Your task to perform on an android device: open wifi settings Image 0: 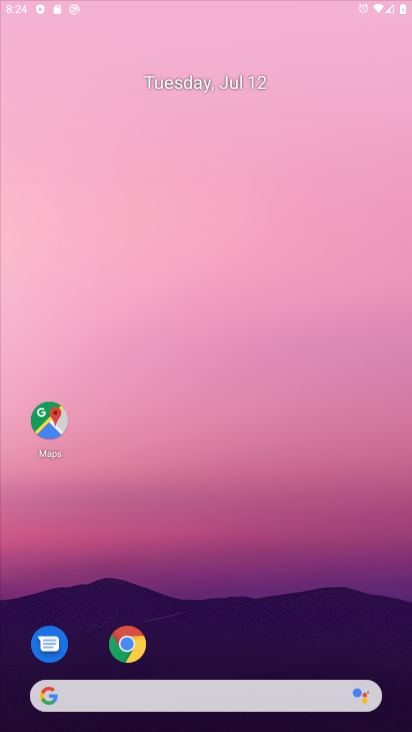
Step 0: drag from (302, 6) to (411, 500)
Your task to perform on an android device: open wifi settings Image 1: 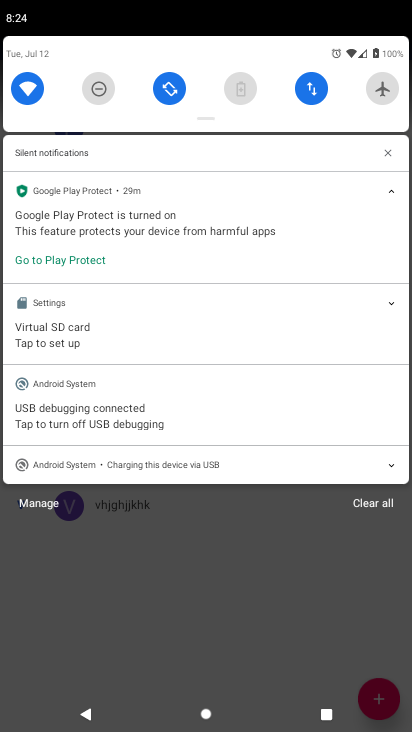
Step 1: press home button
Your task to perform on an android device: open wifi settings Image 2: 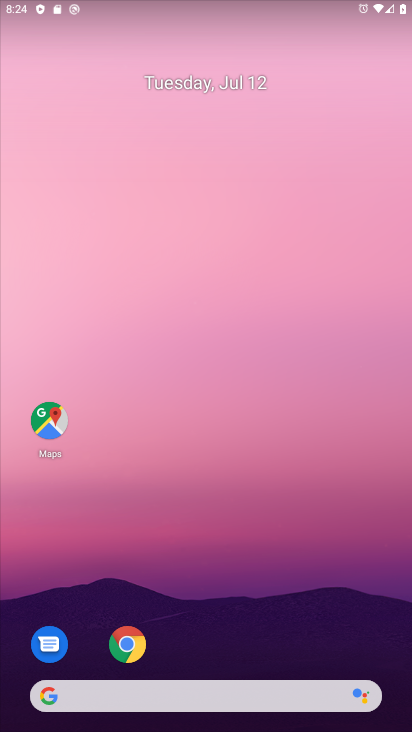
Step 2: drag from (136, 307) to (179, 205)
Your task to perform on an android device: open wifi settings Image 3: 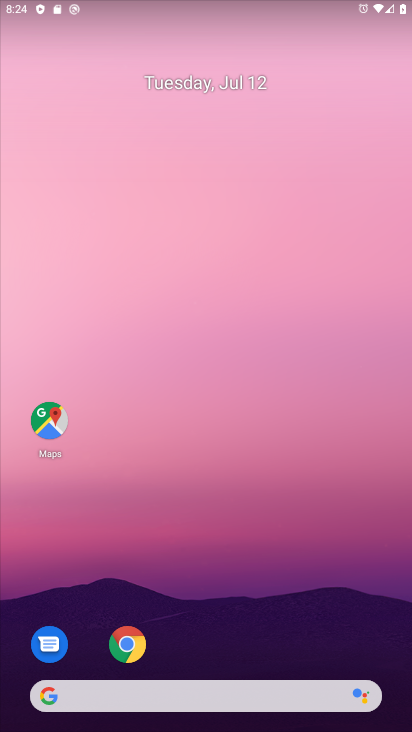
Step 3: drag from (20, 716) to (54, 305)
Your task to perform on an android device: open wifi settings Image 4: 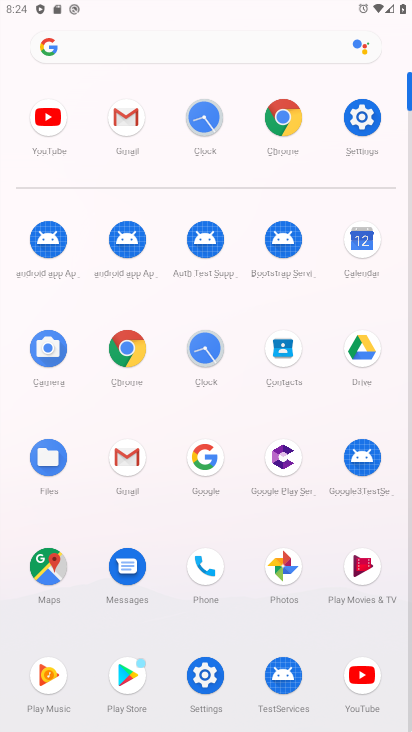
Step 4: click (208, 677)
Your task to perform on an android device: open wifi settings Image 5: 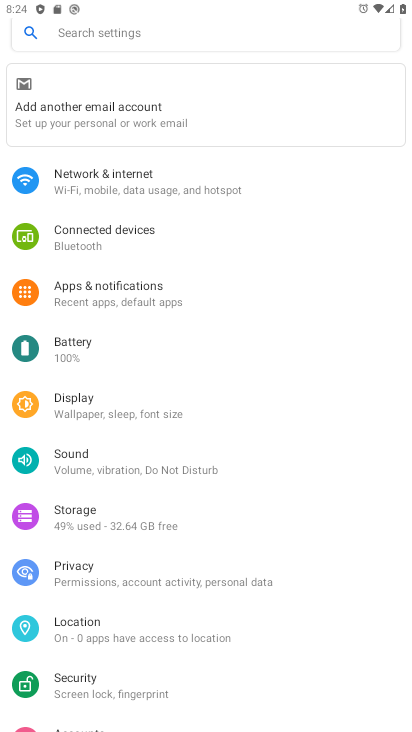
Step 5: click (134, 171)
Your task to perform on an android device: open wifi settings Image 6: 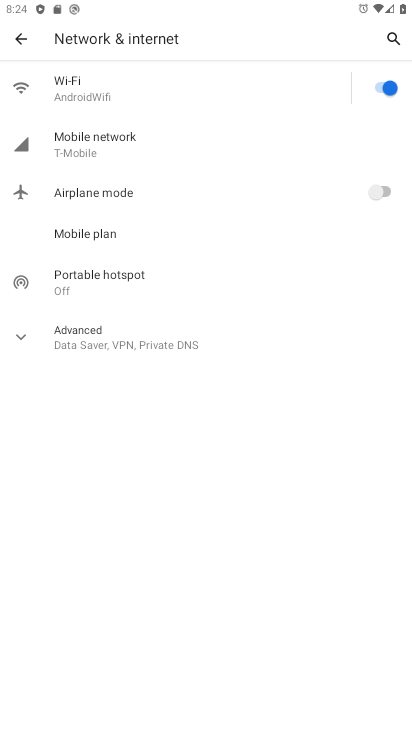
Step 6: task complete